Your task to perform on an android device: toggle notification dots Image 0: 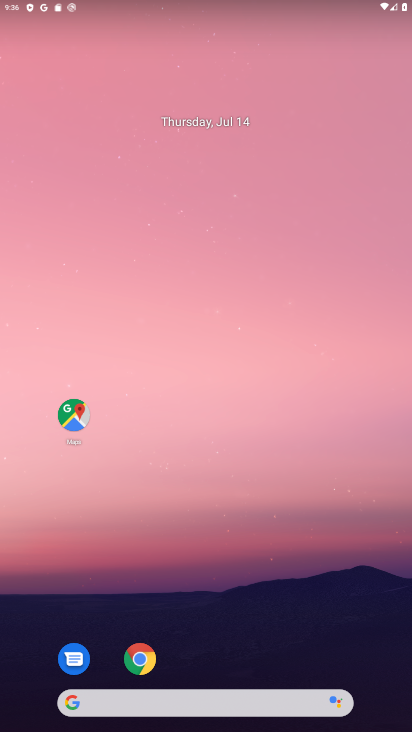
Step 0: drag from (317, 627) to (246, 221)
Your task to perform on an android device: toggle notification dots Image 1: 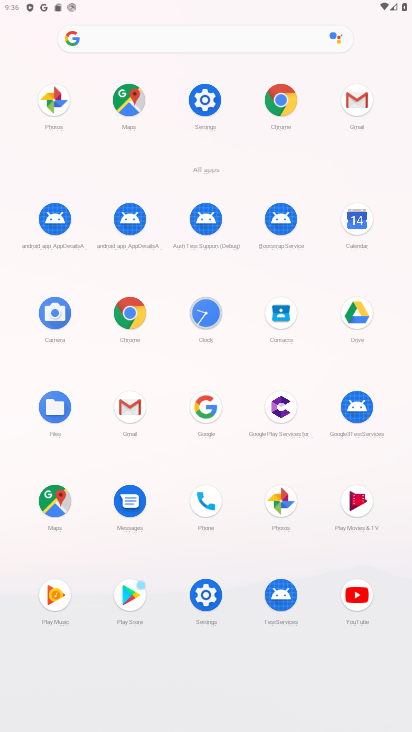
Step 1: click (200, 101)
Your task to perform on an android device: toggle notification dots Image 2: 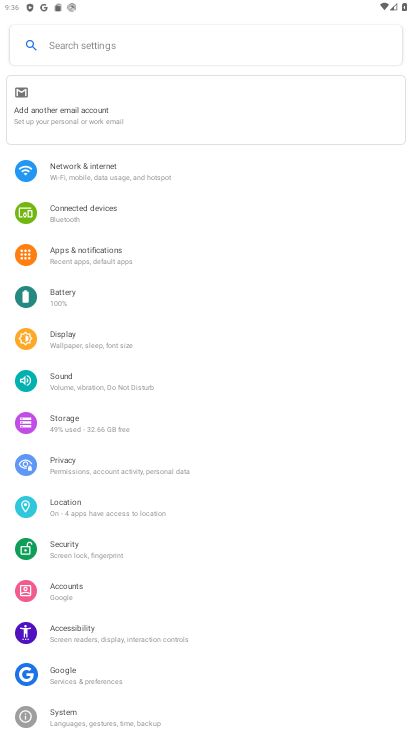
Step 2: click (81, 250)
Your task to perform on an android device: toggle notification dots Image 3: 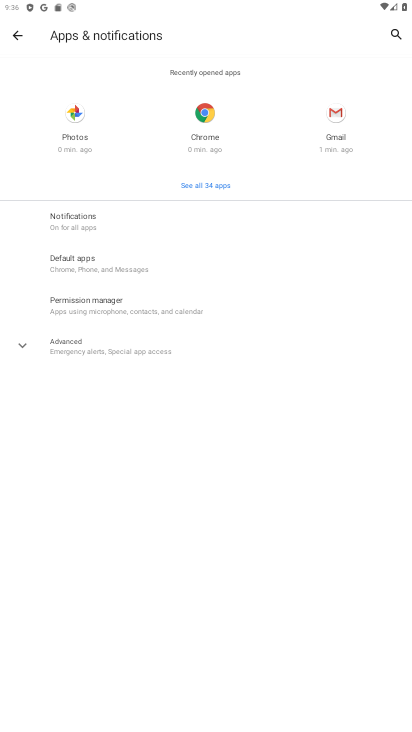
Step 3: click (90, 216)
Your task to perform on an android device: toggle notification dots Image 4: 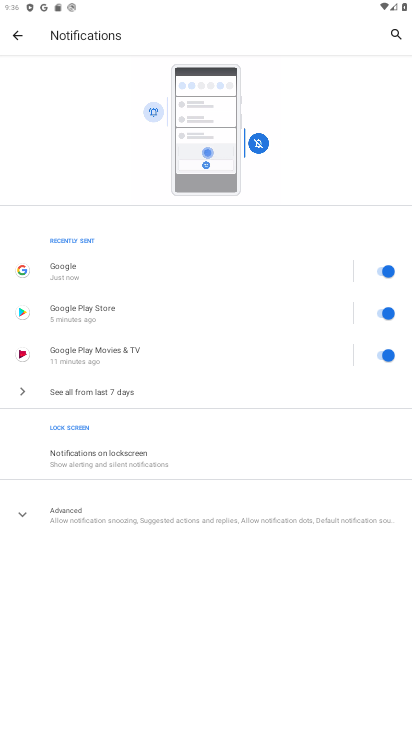
Step 4: click (134, 511)
Your task to perform on an android device: toggle notification dots Image 5: 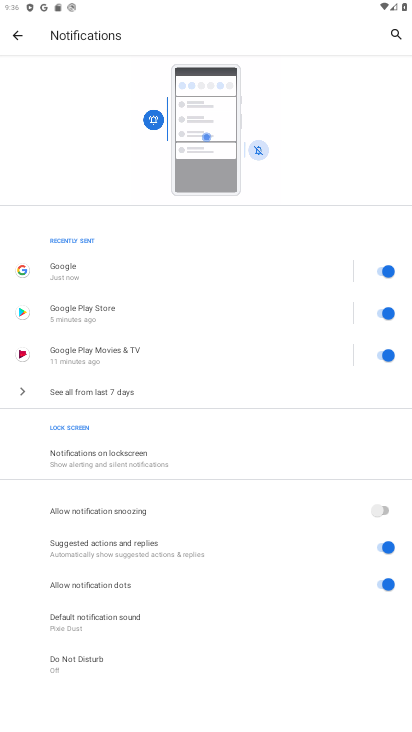
Step 5: click (388, 585)
Your task to perform on an android device: toggle notification dots Image 6: 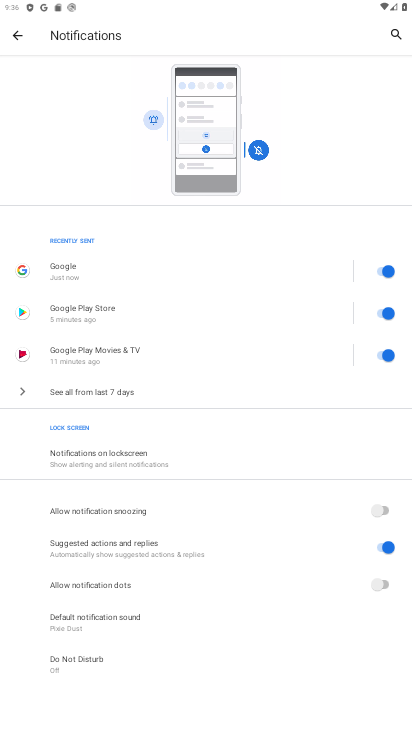
Step 6: task complete